Your task to perform on an android device: Open notification settings Image 0: 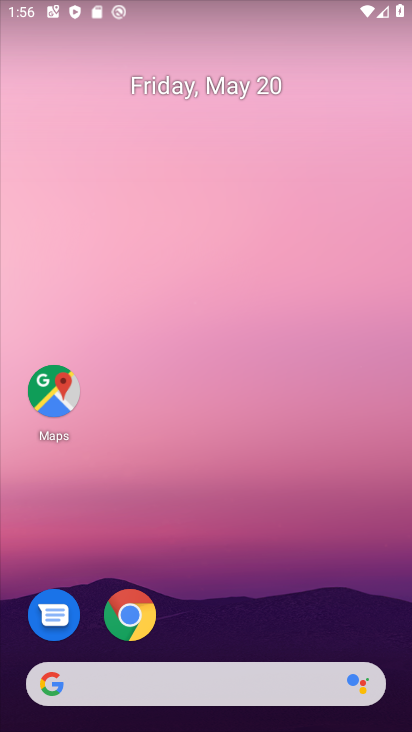
Step 0: drag from (228, 647) to (214, 182)
Your task to perform on an android device: Open notification settings Image 1: 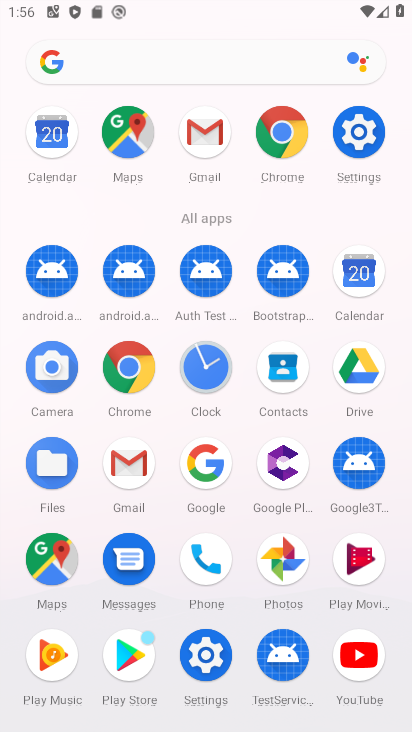
Step 1: click (341, 117)
Your task to perform on an android device: Open notification settings Image 2: 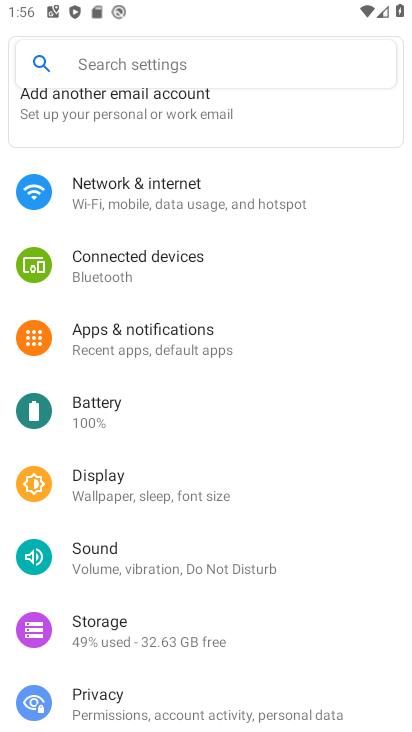
Step 2: click (179, 343)
Your task to perform on an android device: Open notification settings Image 3: 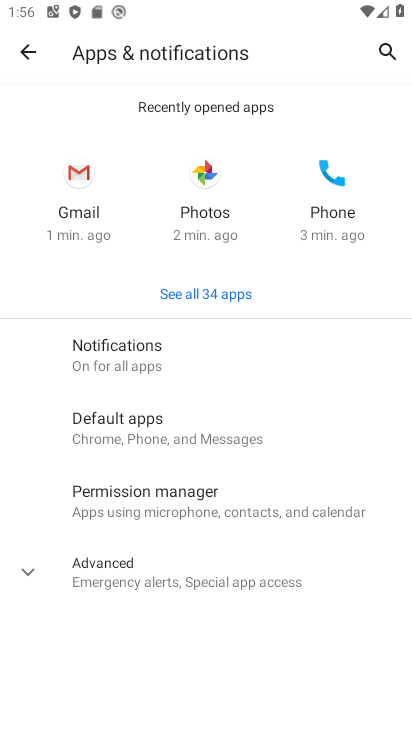
Step 3: click (161, 358)
Your task to perform on an android device: Open notification settings Image 4: 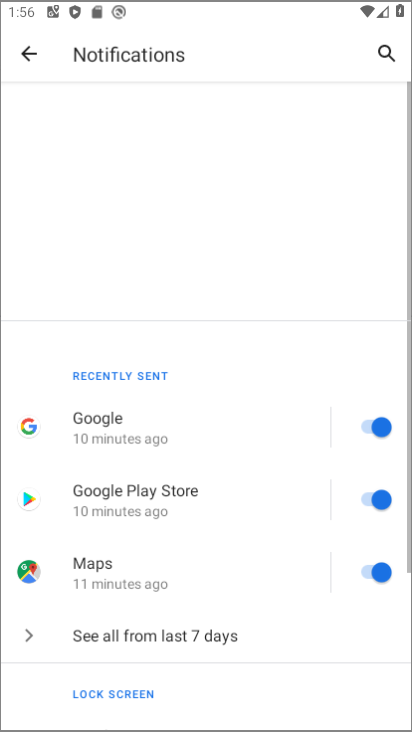
Step 4: task complete